Your task to perform on an android device: toggle wifi Image 0: 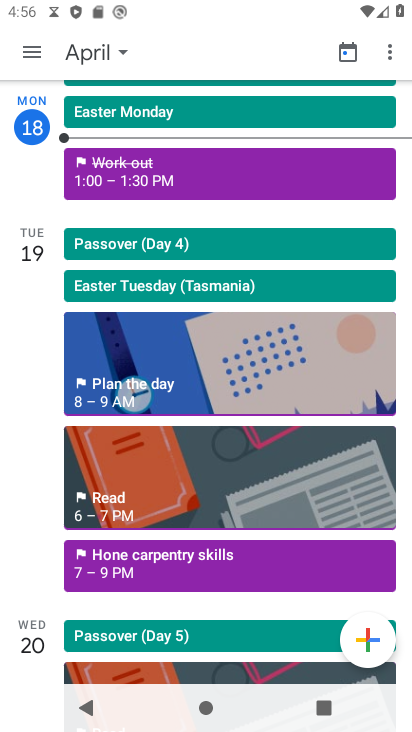
Step 0: press home button
Your task to perform on an android device: toggle wifi Image 1: 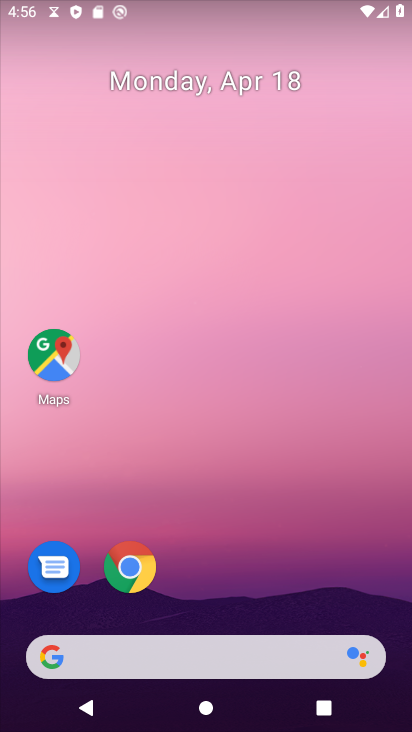
Step 1: drag from (170, 594) to (221, 106)
Your task to perform on an android device: toggle wifi Image 2: 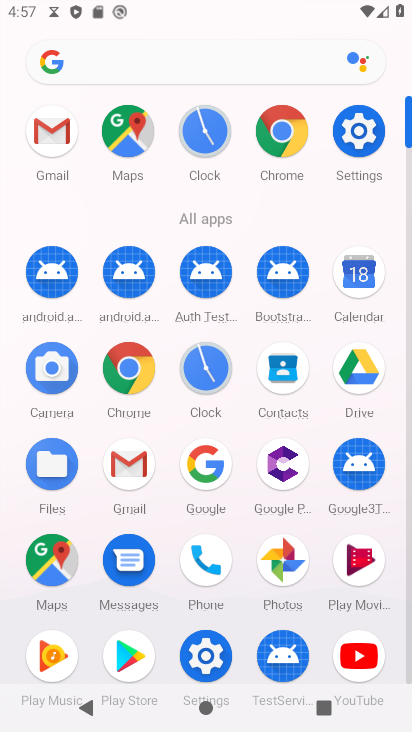
Step 2: click (359, 147)
Your task to perform on an android device: toggle wifi Image 3: 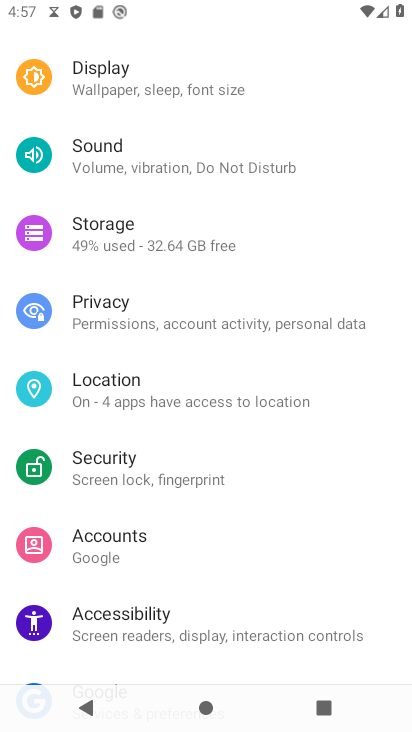
Step 3: drag from (278, 210) to (270, 472)
Your task to perform on an android device: toggle wifi Image 4: 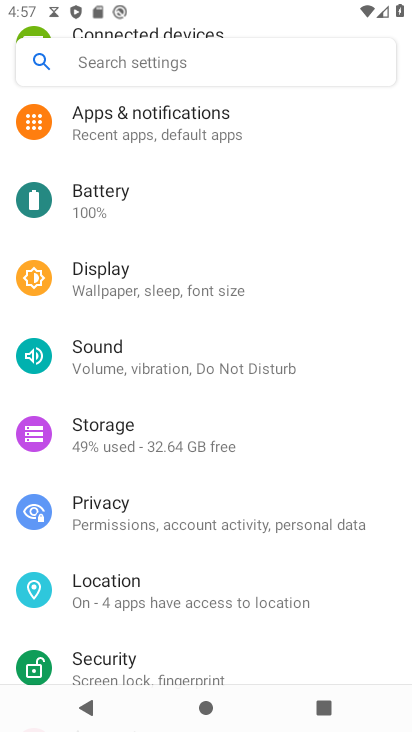
Step 4: drag from (292, 228) to (290, 379)
Your task to perform on an android device: toggle wifi Image 5: 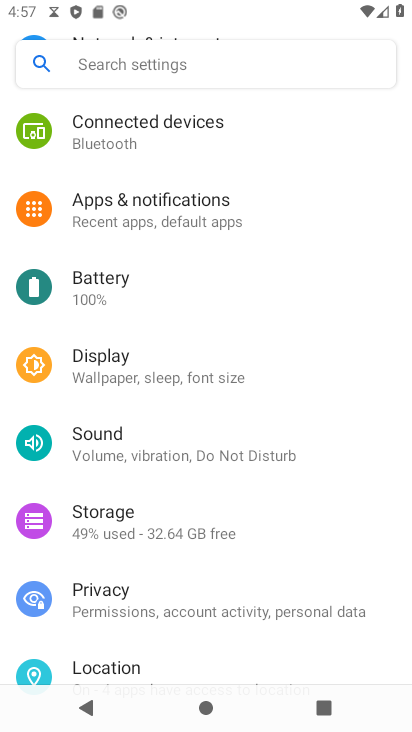
Step 5: drag from (309, 263) to (279, 383)
Your task to perform on an android device: toggle wifi Image 6: 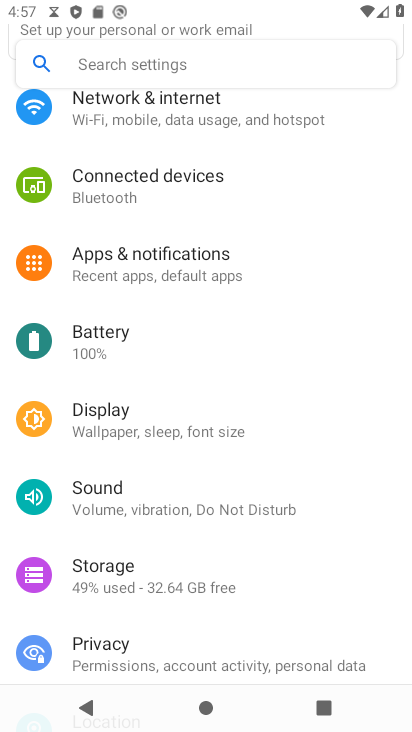
Step 6: drag from (286, 263) to (282, 456)
Your task to perform on an android device: toggle wifi Image 7: 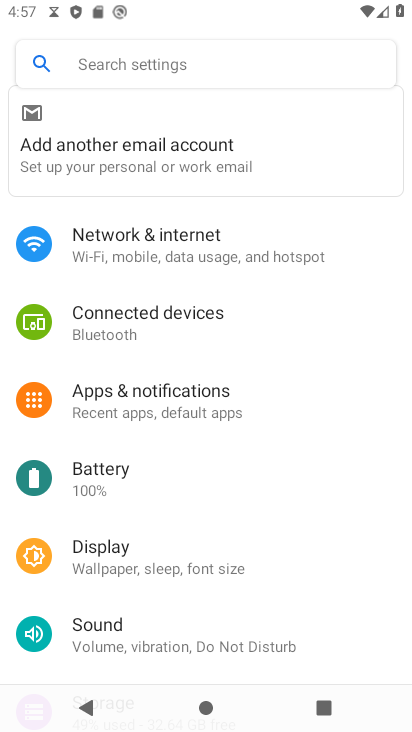
Step 7: click (233, 244)
Your task to perform on an android device: toggle wifi Image 8: 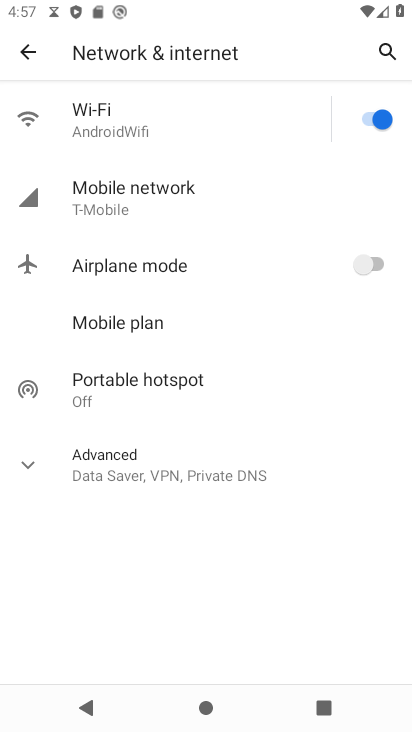
Step 8: click (382, 114)
Your task to perform on an android device: toggle wifi Image 9: 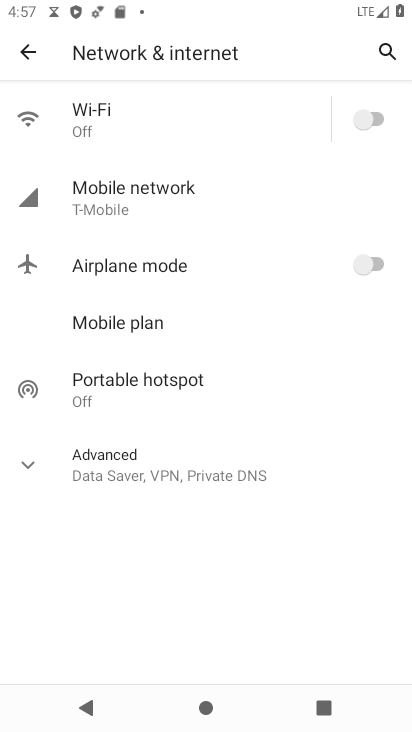
Step 9: task complete